Your task to perform on an android device: Open calendar and show me the fourth week of next month Image 0: 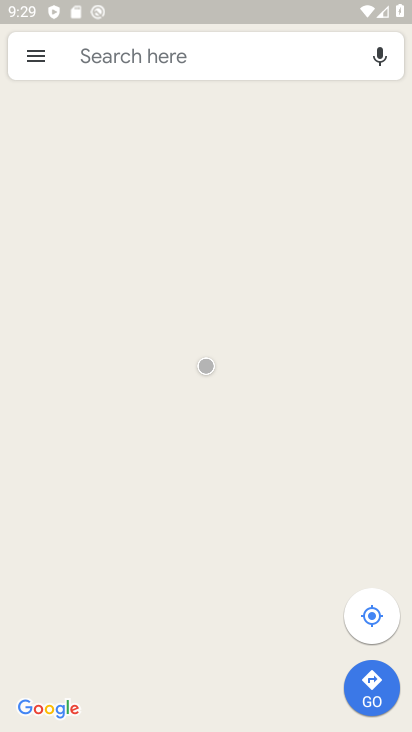
Step 0: press home button
Your task to perform on an android device: Open calendar and show me the fourth week of next month Image 1: 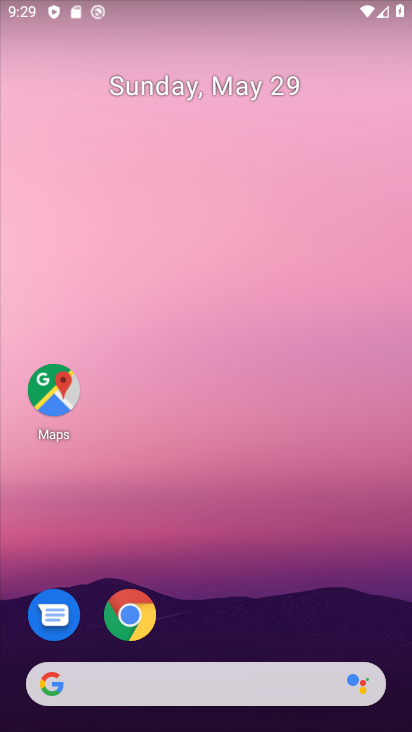
Step 1: drag from (233, 657) to (327, 75)
Your task to perform on an android device: Open calendar and show me the fourth week of next month Image 2: 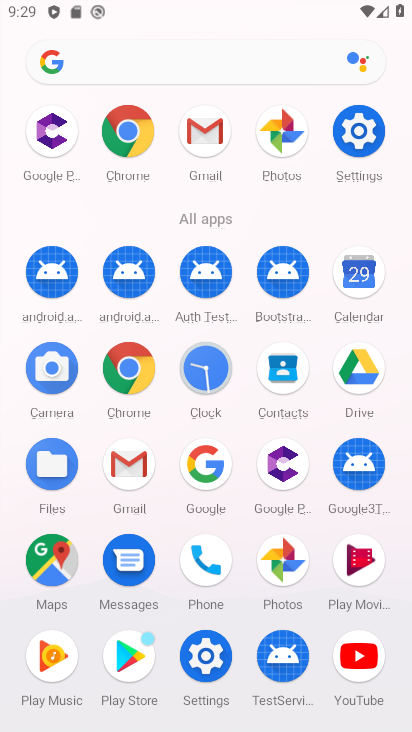
Step 2: click (349, 290)
Your task to perform on an android device: Open calendar and show me the fourth week of next month Image 3: 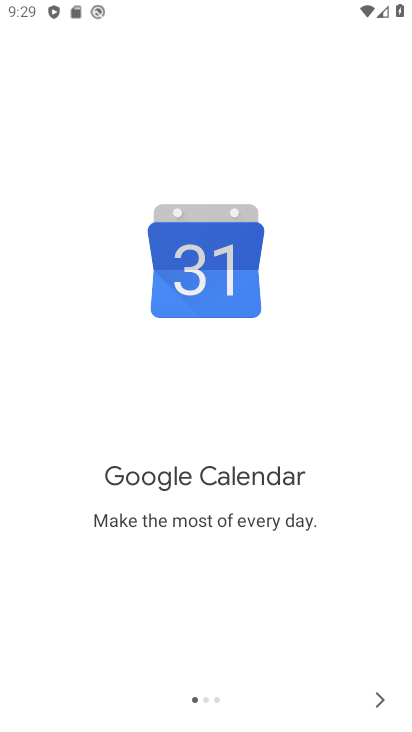
Step 3: click (374, 694)
Your task to perform on an android device: Open calendar and show me the fourth week of next month Image 4: 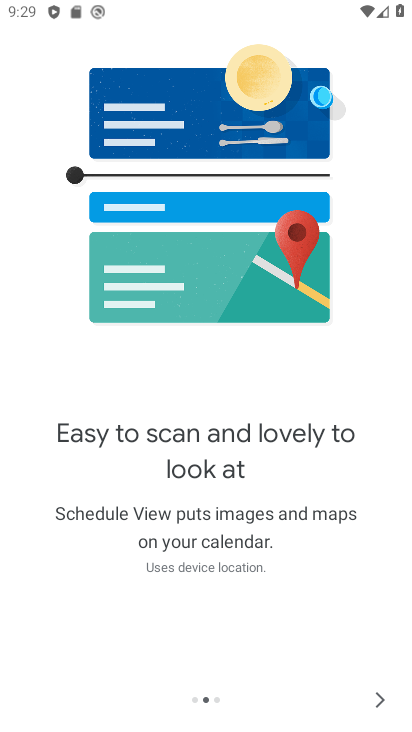
Step 4: click (374, 694)
Your task to perform on an android device: Open calendar and show me the fourth week of next month Image 5: 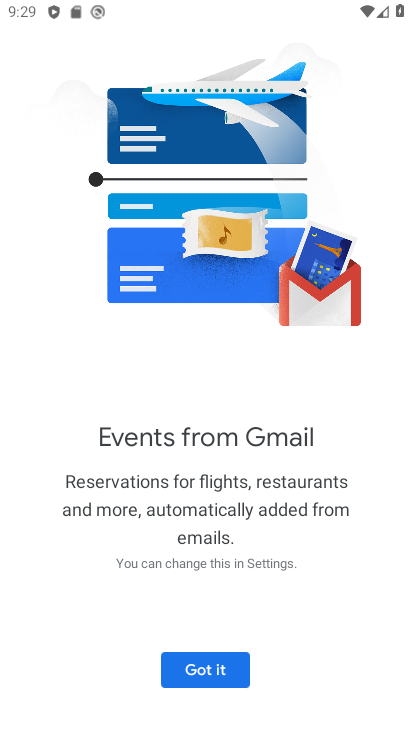
Step 5: click (207, 663)
Your task to perform on an android device: Open calendar and show me the fourth week of next month Image 6: 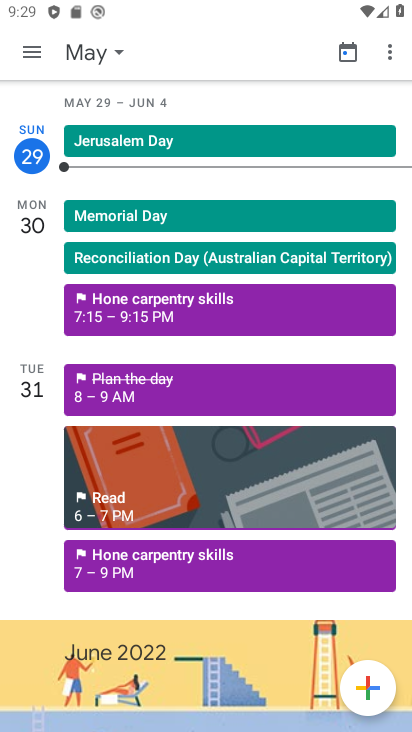
Step 6: click (39, 54)
Your task to perform on an android device: Open calendar and show me the fourth week of next month Image 7: 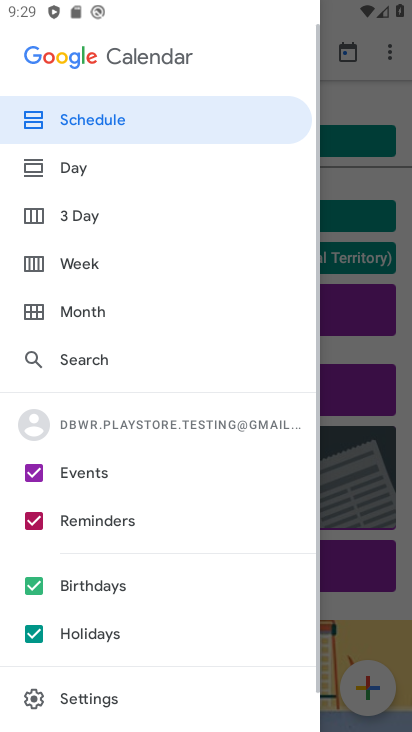
Step 7: click (65, 266)
Your task to perform on an android device: Open calendar and show me the fourth week of next month Image 8: 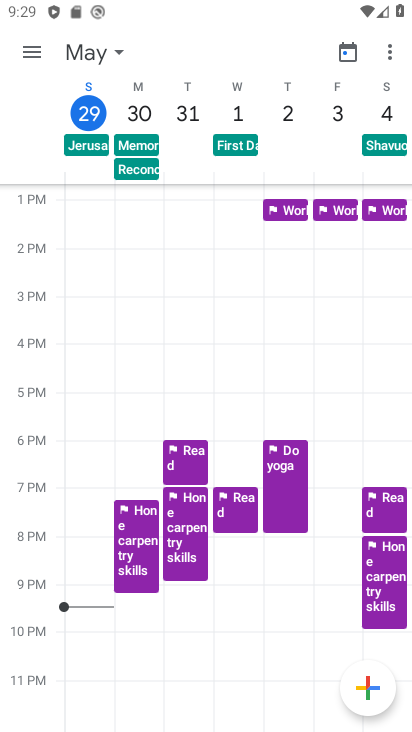
Step 8: task complete